Your task to perform on an android device: Go to CNN.com Image 0: 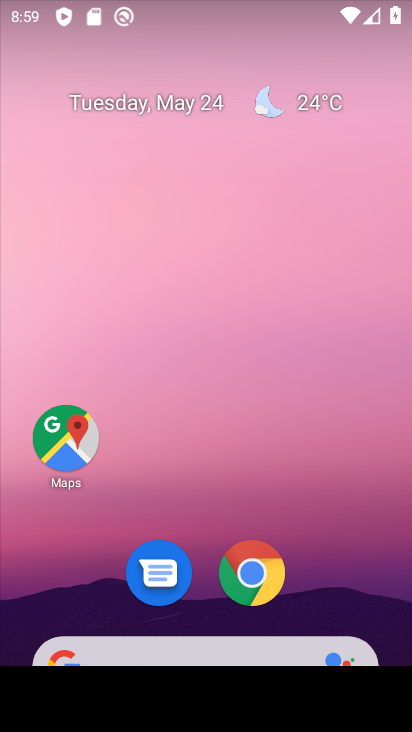
Step 0: click (251, 573)
Your task to perform on an android device: Go to CNN.com Image 1: 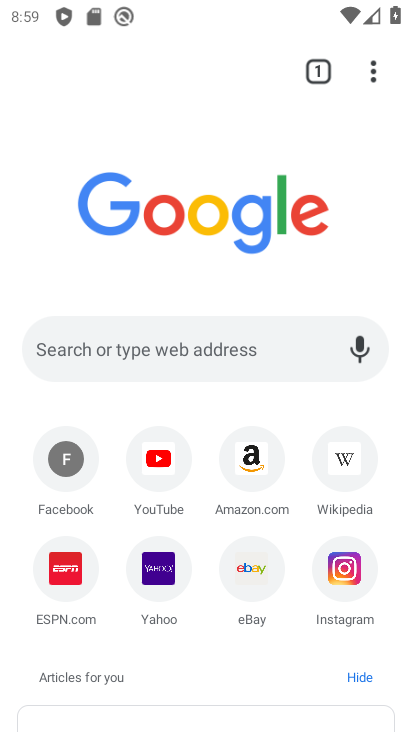
Step 1: click (142, 352)
Your task to perform on an android device: Go to CNN.com Image 2: 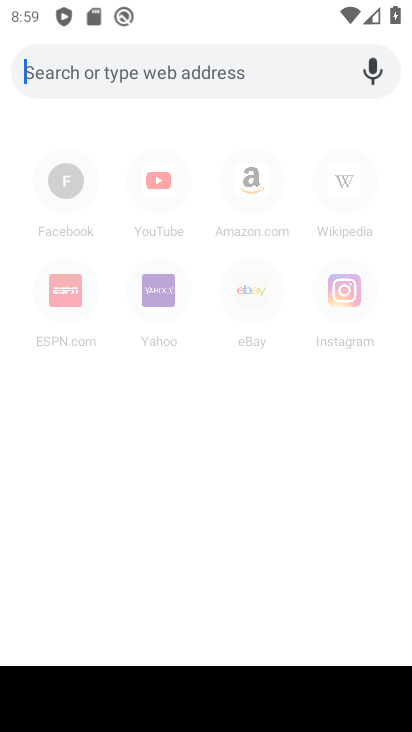
Step 2: type "cnnn"
Your task to perform on an android device: Go to CNN.com Image 3: 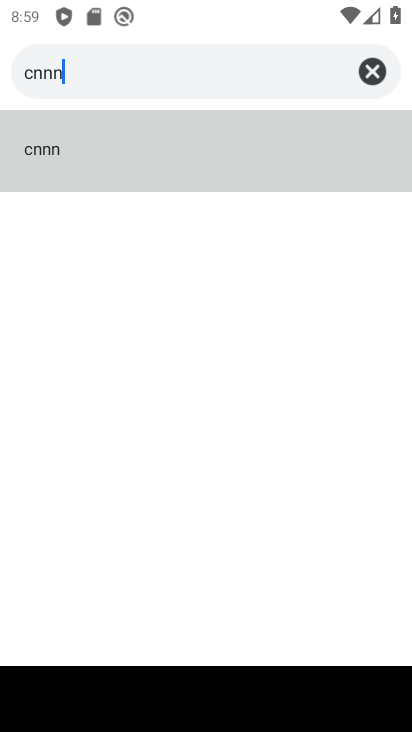
Step 3: click (69, 144)
Your task to perform on an android device: Go to CNN.com Image 4: 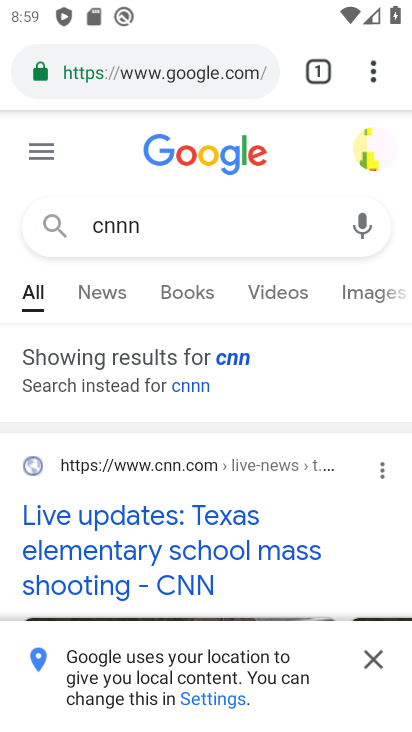
Step 4: click (144, 468)
Your task to perform on an android device: Go to CNN.com Image 5: 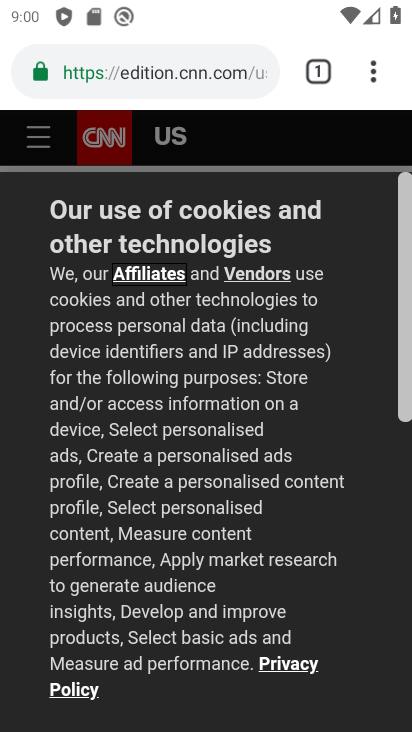
Step 5: task complete